Your task to perform on an android device: toggle show notifications on the lock screen Image 0: 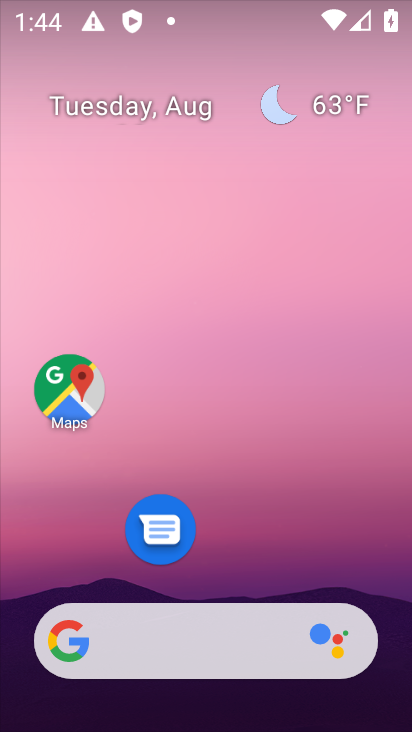
Step 0: drag from (245, 596) to (239, 123)
Your task to perform on an android device: toggle show notifications on the lock screen Image 1: 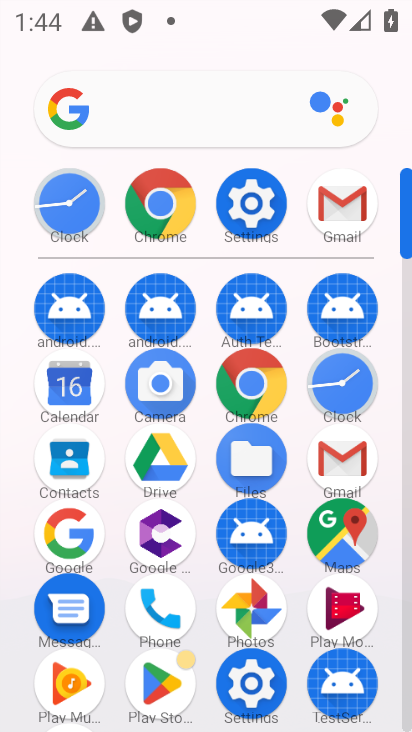
Step 1: click (252, 708)
Your task to perform on an android device: toggle show notifications on the lock screen Image 2: 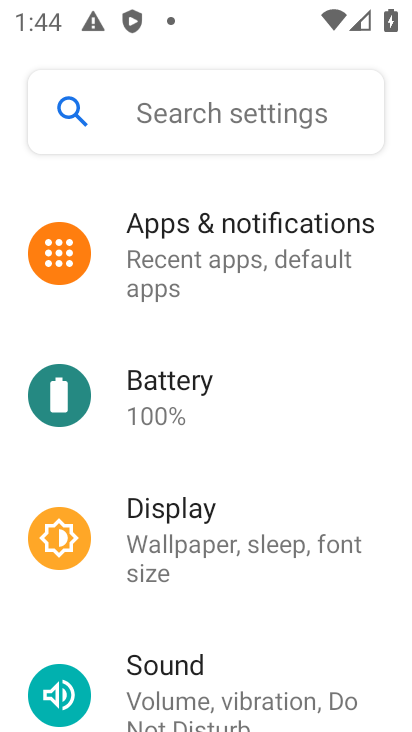
Step 2: drag from (252, 708) to (251, 264)
Your task to perform on an android device: toggle show notifications on the lock screen Image 3: 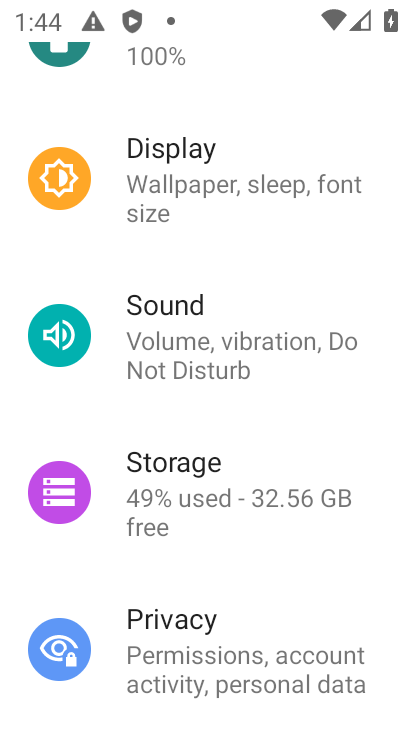
Step 3: drag from (206, 222) to (213, 493)
Your task to perform on an android device: toggle show notifications on the lock screen Image 4: 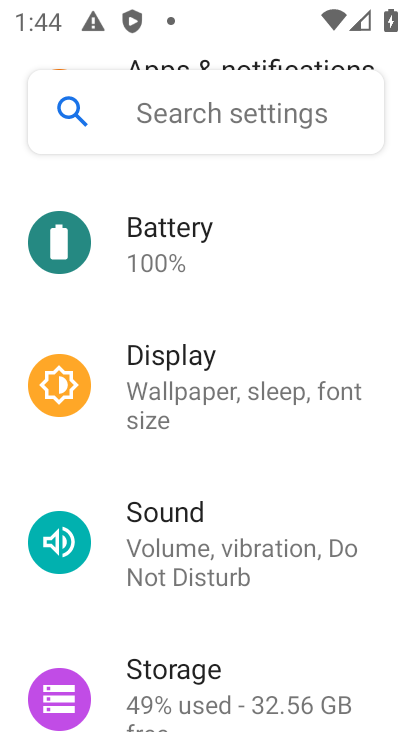
Step 4: drag from (243, 262) to (284, 492)
Your task to perform on an android device: toggle show notifications on the lock screen Image 5: 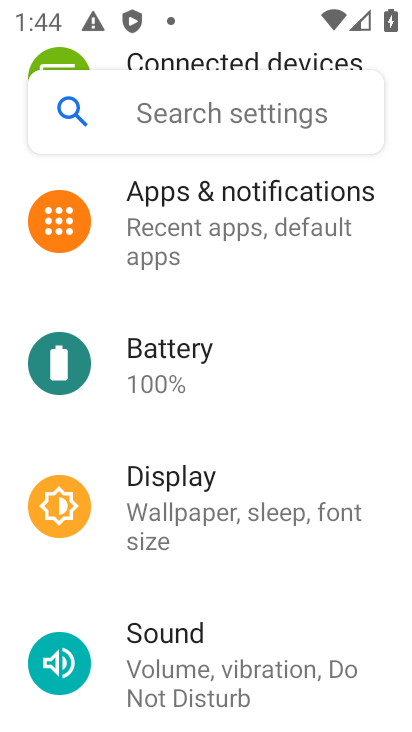
Step 5: click (221, 257)
Your task to perform on an android device: toggle show notifications on the lock screen Image 6: 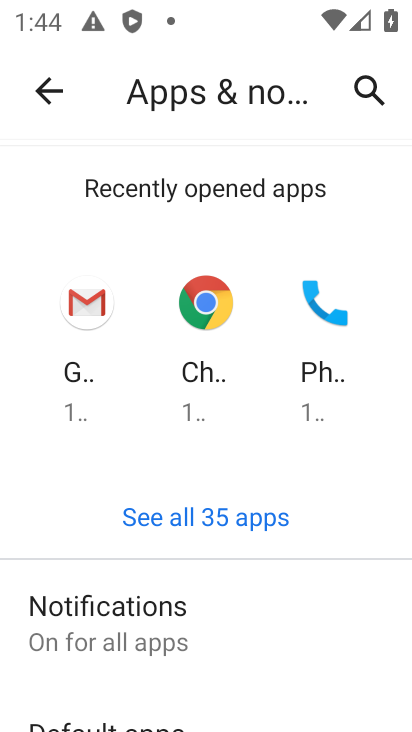
Step 6: drag from (227, 617) to (222, 258)
Your task to perform on an android device: toggle show notifications on the lock screen Image 7: 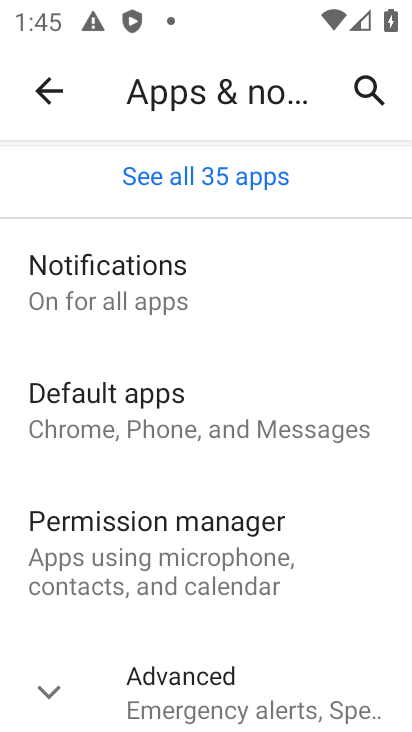
Step 7: click (130, 307)
Your task to perform on an android device: toggle show notifications on the lock screen Image 8: 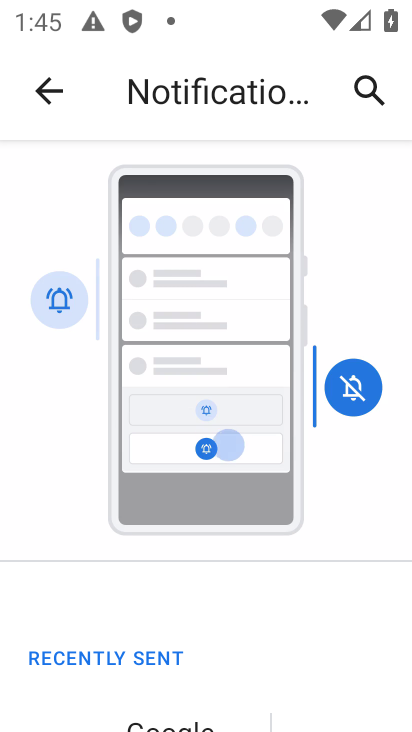
Step 8: drag from (146, 636) to (81, 131)
Your task to perform on an android device: toggle show notifications on the lock screen Image 9: 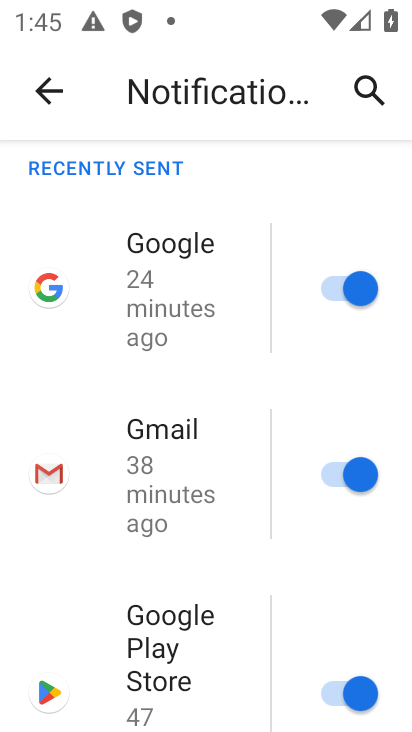
Step 9: drag from (218, 698) to (166, 402)
Your task to perform on an android device: toggle show notifications on the lock screen Image 10: 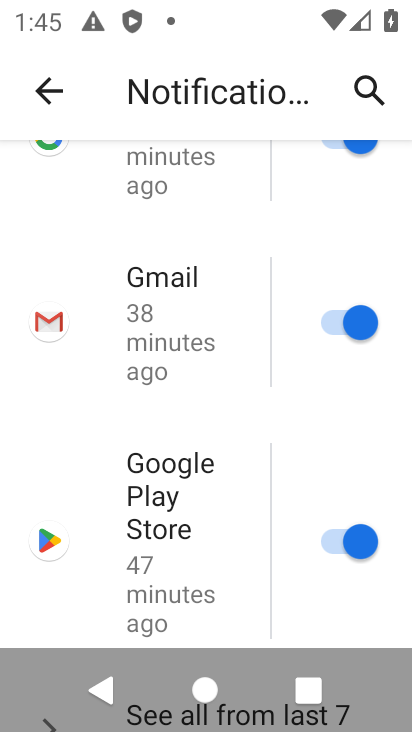
Step 10: drag from (166, 616) to (108, 370)
Your task to perform on an android device: toggle show notifications on the lock screen Image 11: 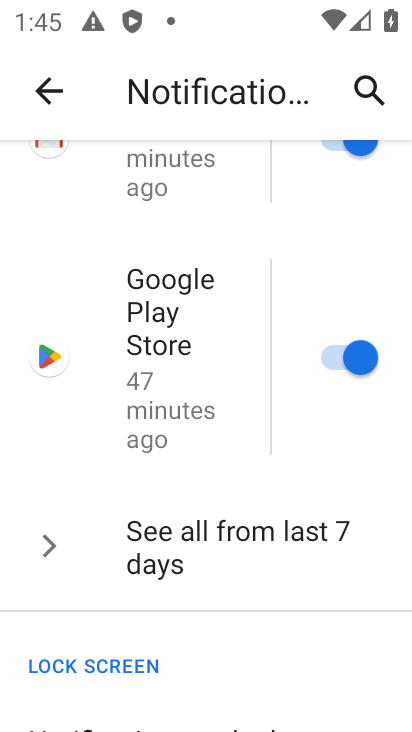
Step 11: drag from (140, 616) to (132, 448)
Your task to perform on an android device: toggle show notifications on the lock screen Image 12: 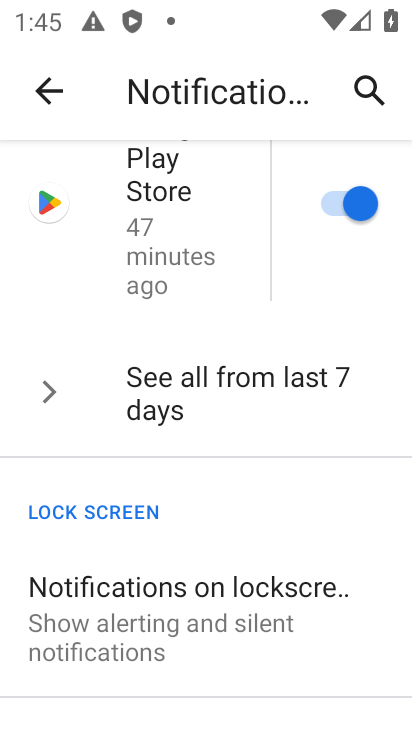
Step 12: drag from (169, 606) to (150, 475)
Your task to perform on an android device: toggle show notifications on the lock screen Image 13: 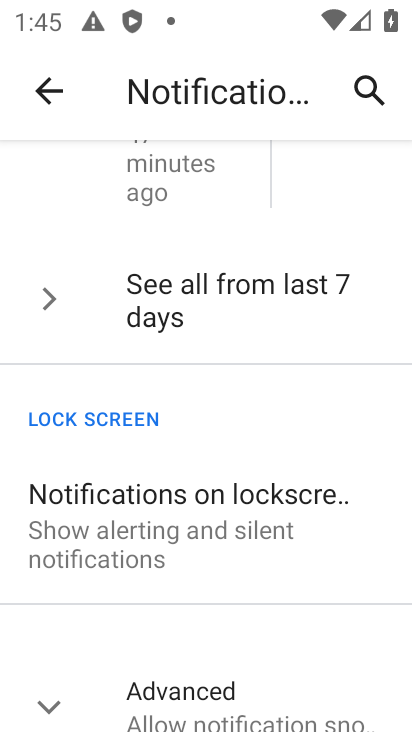
Step 13: click (175, 548)
Your task to perform on an android device: toggle show notifications on the lock screen Image 14: 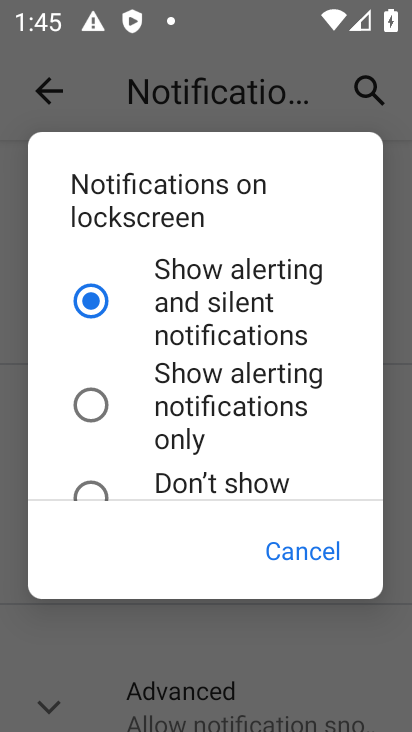
Step 14: click (173, 323)
Your task to perform on an android device: toggle show notifications on the lock screen Image 15: 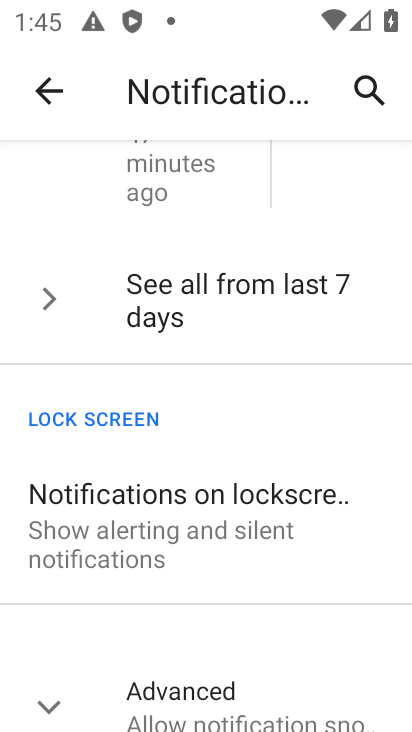
Step 15: task complete